Your task to perform on an android device: snooze an email in the gmail app Image 0: 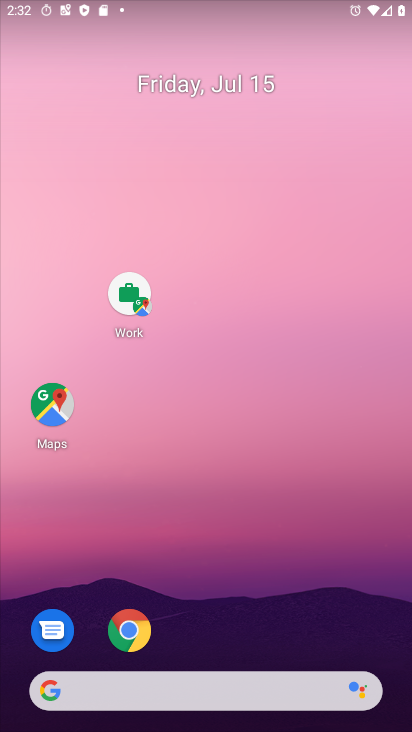
Step 0: drag from (193, 645) to (190, 247)
Your task to perform on an android device: snooze an email in the gmail app Image 1: 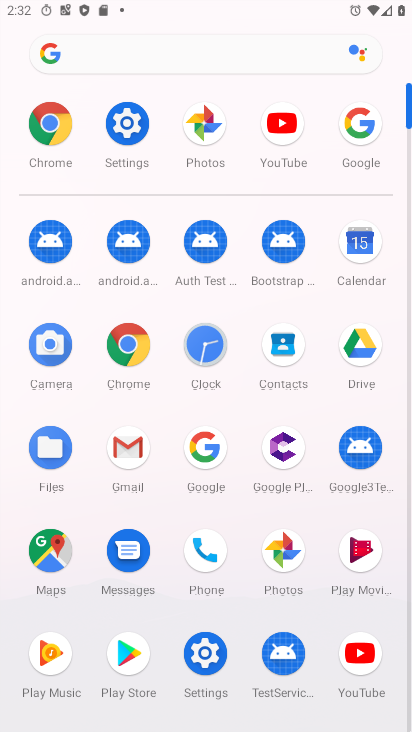
Step 1: click (119, 466)
Your task to perform on an android device: snooze an email in the gmail app Image 2: 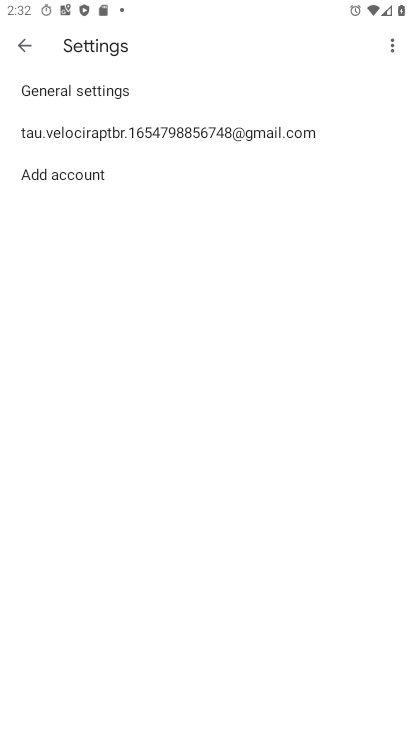
Step 2: click (25, 47)
Your task to perform on an android device: snooze an email in the gmail app Image 3: 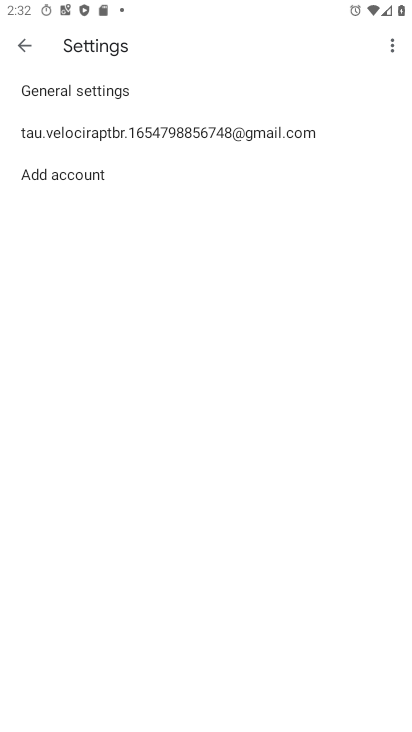
Step 3: click (25, 47)
Your task to perform on an android device: snooze an email in the gmail app Image 4: 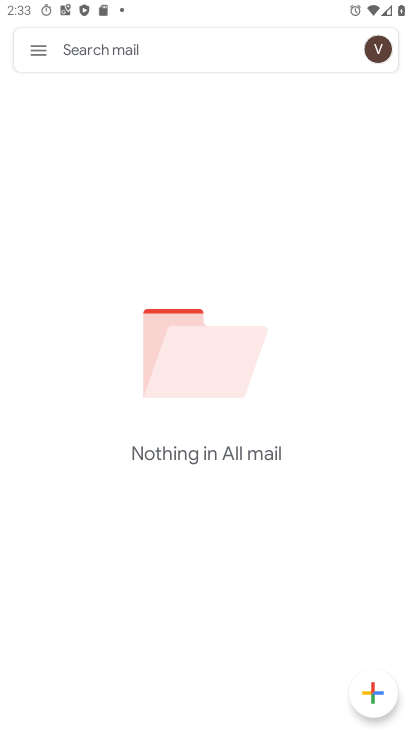
Step 4: task complete